Your task to perform on an android device: Clear the shopping cart on bestbuy. Search for "usb-c" on bestbuy, select the first entry, add it to the cart, then select checkout. Image 0: 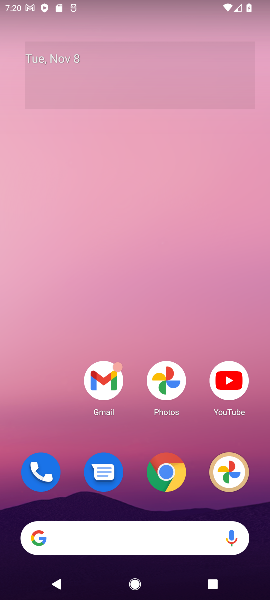
Step 0: click (164, 470)
Your task to perform on an android device: Clear the shopping cart on bestbuy. Search for "usb-c" on bestbuy, select the first entry, add it to the cart, then select checkout. Image 1: 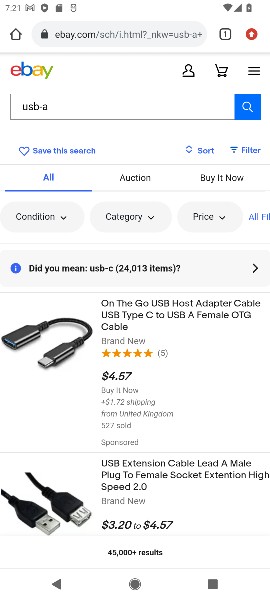
Step 1: click (129, 33)
Your task to perform on an android device: Clear the shopping cart on bestbuy. Search for "usb-c" on bestbuy, select the first entry, add it to the cart, then select checkout. Image 2: 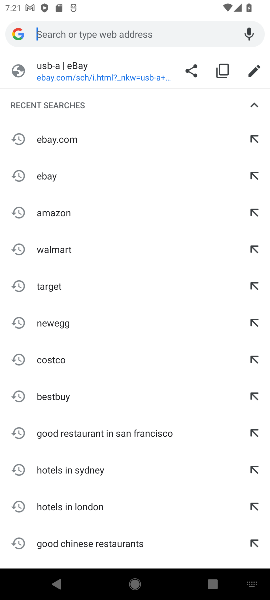
Step 2: click (55, 398)
Your task to perform on an android device: Clear the shopping cart on bestbuy. Search for "usb-c" on bestbuy, select the first entry, add it to the cart, then select checkout. Image 3: 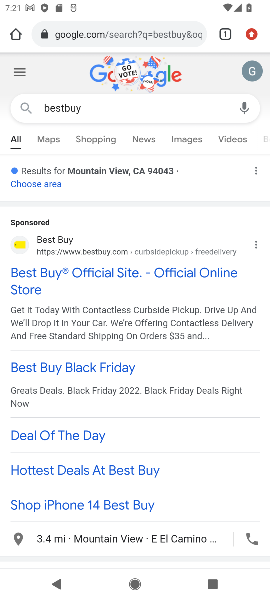
Step 3: click (104, 265)
Your task to perform on an android device: Clear the shopping cart on bestbuy. Search for "usb-c" on bestbuy, select the first entry, add it to the cart, then select checkout. Image 4: 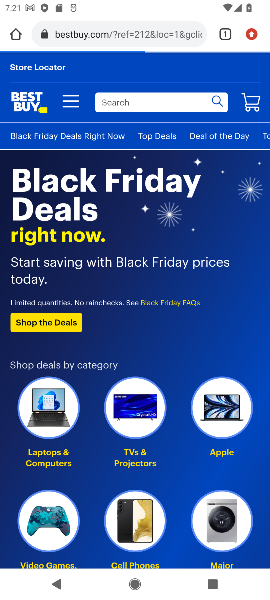
Step 4: click (160, 98)
Your task to perform on an android device: Clear the shopping cart on bestbuy. Search for "usb-c" on bestbuy, select the first entry, add it to the cart, then select checkout. Image 5: 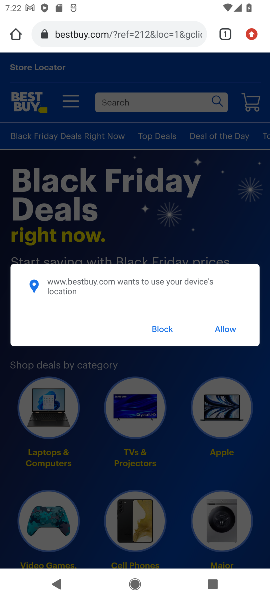
Step 5: click (159, 330)
Your task to perform on an android device: Clear the shopping cart on bestbuy. Search for "usb-c" on bestbuy, select the first entry, add it to the cart, then select checkout. Image 6: 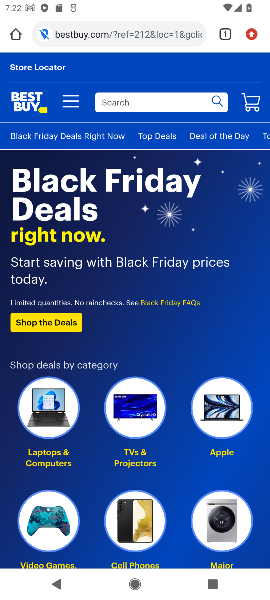
Step 6: click (155, 103)
Your task to perform on an android device: Clear the shopping cart on bestbuy. Search for "usb-c" on bestbuy, select the first entry, add it to the cart, then select checkout. Image 7: 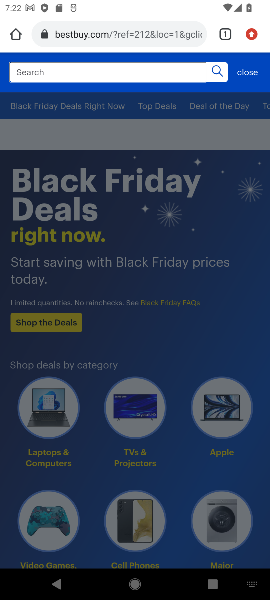
Step 7: type "usb-c"
Your task to perform on an android device: Clear the shopping cart on bestbuy. Search for "usb-c" on bestbuy, select the first entry, add it to the cart, then select checkout. Image 8: 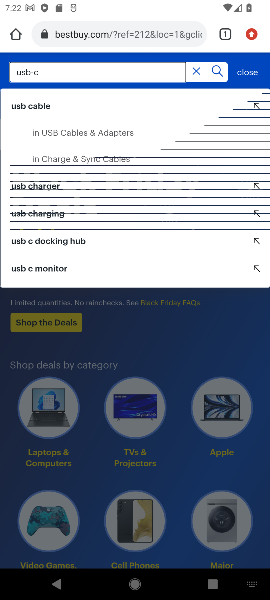
Step 8: press enter
Your task to perform on an android device: Clear the shopping cart on bestbuy. Search for "usb-c" on bestbuy, select the first entry, add it to the cart, then select checkout. Image 9: 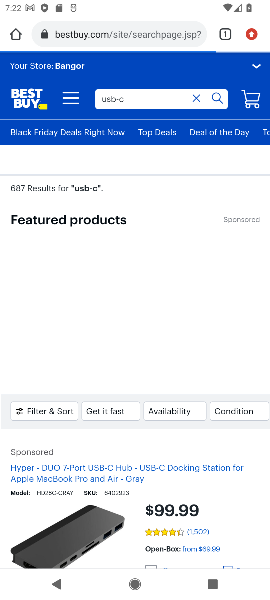
Step 9: drag from (128, 533) to (131, 236)
Your task to perform on an android device: Clear the shopping cart on bestbuy. Search for "usb-c" on bestbuy, select the first entry, add it to the cart, then select checkout. Image 10: 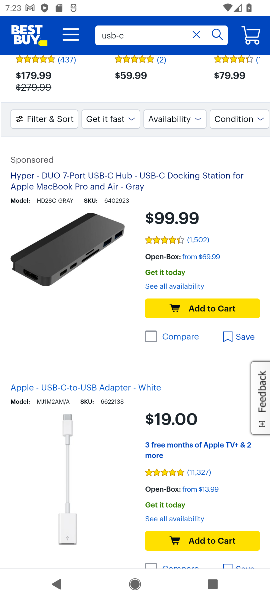
Step 10: click (210, 304)
Your task to perform on an android device: Clear the shopping cart on bestbuy. Search for "usb-c" on bestbuy, select the first entry, add it to the cart, then select checkout. Image 11: 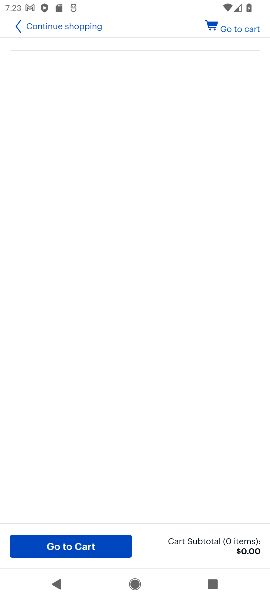
Step 11: click (261, 25)
Your task to perform on an android device: Clear the shopping cart on bestbuy. Search for "usb-c" on bestbuy, select the first entry, add it to the cart, then select checkout. Image 12: 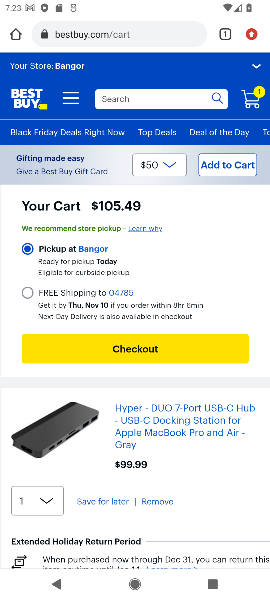
Step 12: click (141, 342)
Your task to perform on an android device: Clear the shopping cart on bestbuy. Search for "usb-c" on bestbuy, select the first entry, add it to the cart, then select checkout. Image 13: 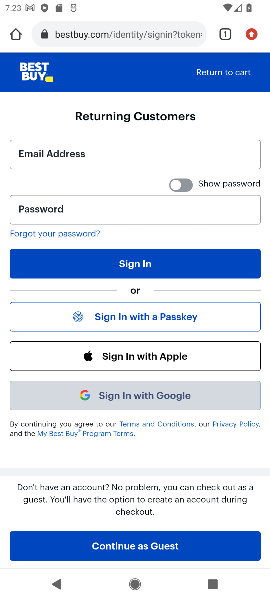
Step 13: task complete